Your task to perform on an android device: Open Google Maps Image 0: 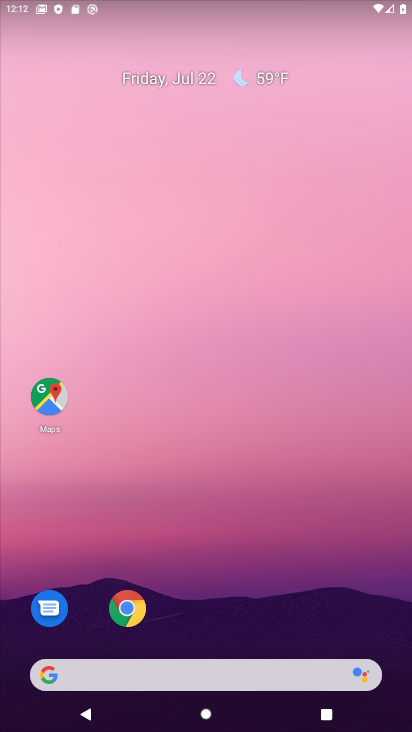
Step 0: drag from (200, 608) to (218, 247)
Your task to perform on an android device: Open Google Maps Image 1: 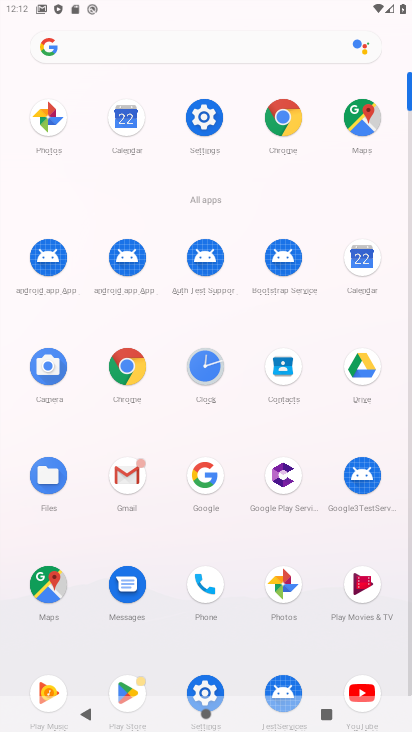
Step 1: click (31, 589)
Your task to perform on an android device: Open Google Maps Image 2: 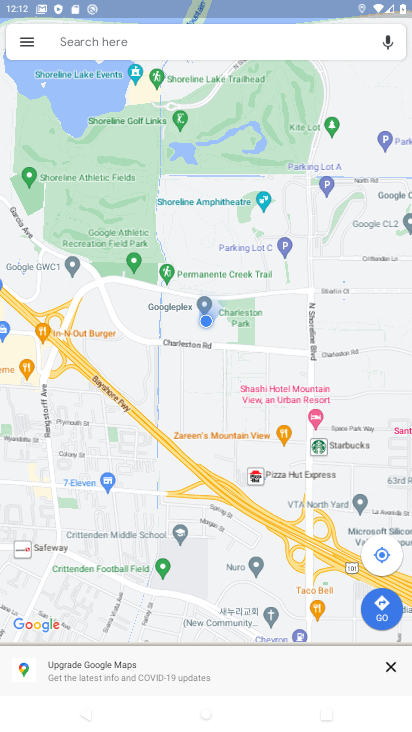
Step 2: task complete